Your task to perform on an android device: Open calendar and show me the second week of next month Image 0: 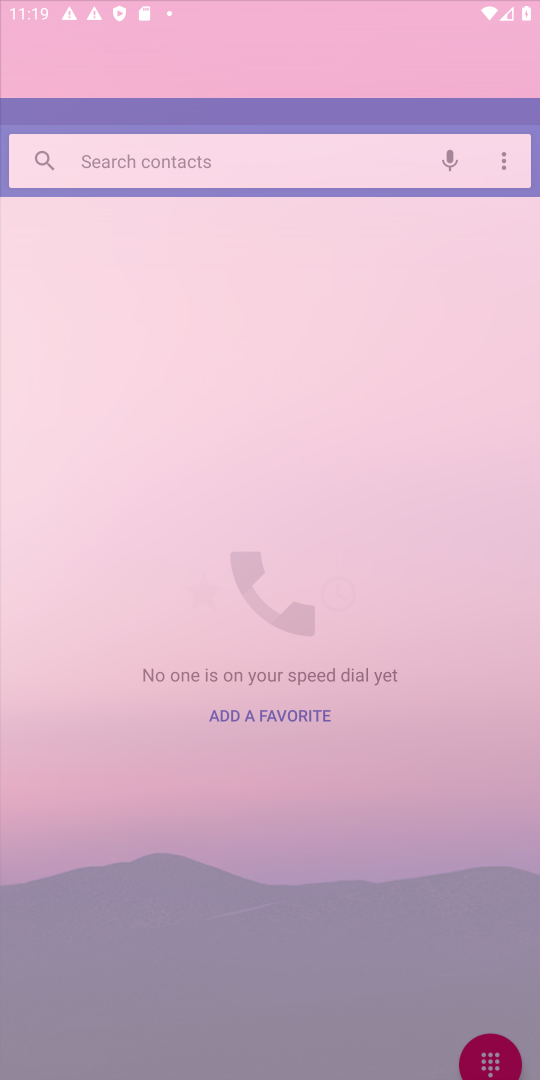
Step 0: press home button
Your task to perform on an android device: Open calendar and show me the second week of next month Image 1: 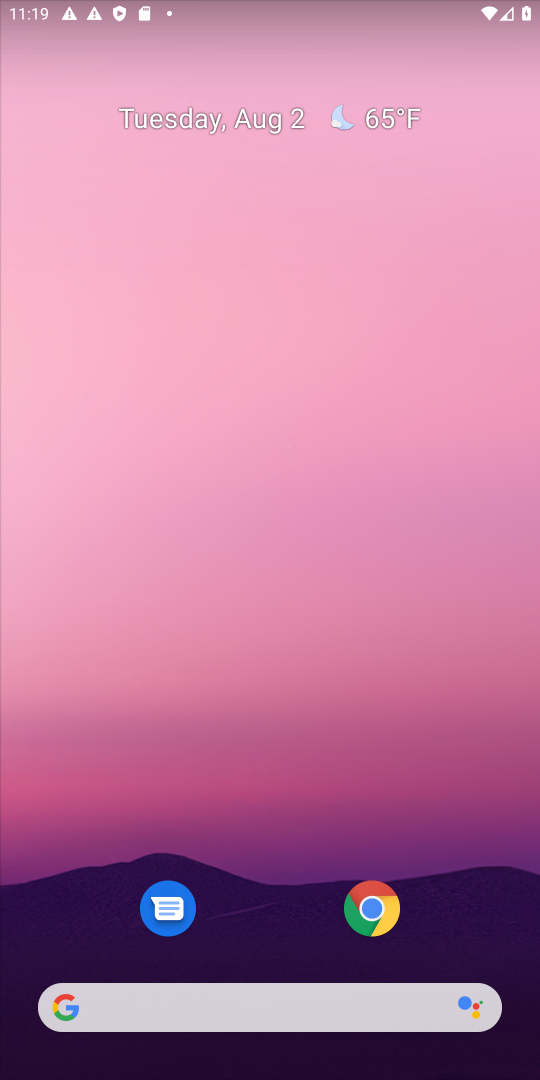
Step 1: drag from (270, 948) to (272, 130)
Your task to perform on an android device: Open calendar and show me the second week of next month Image 2: 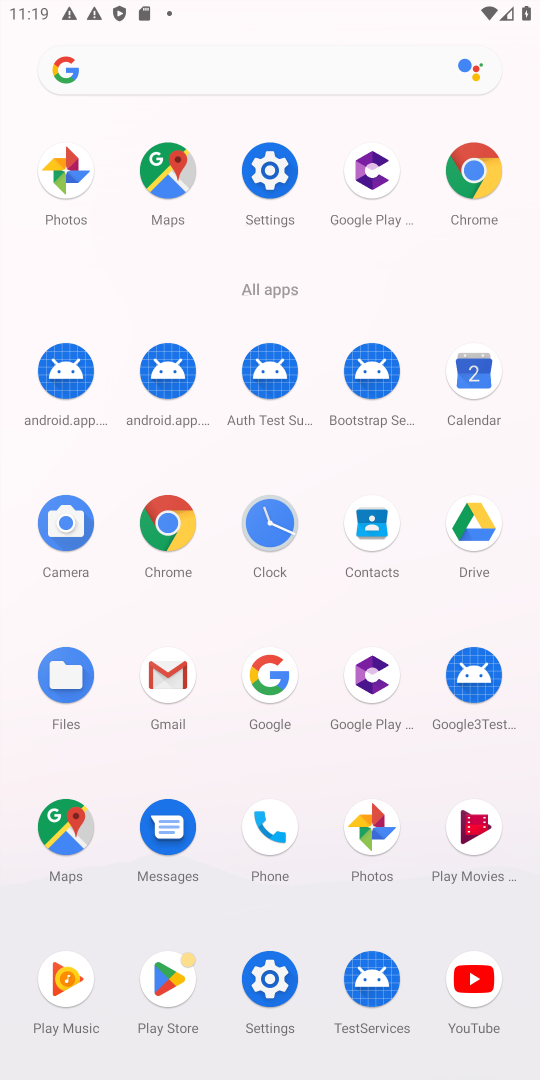
Step 2: click (472, 366)
Your task to perform on an android device: Open calendar and show me the second week of next month Image 3: 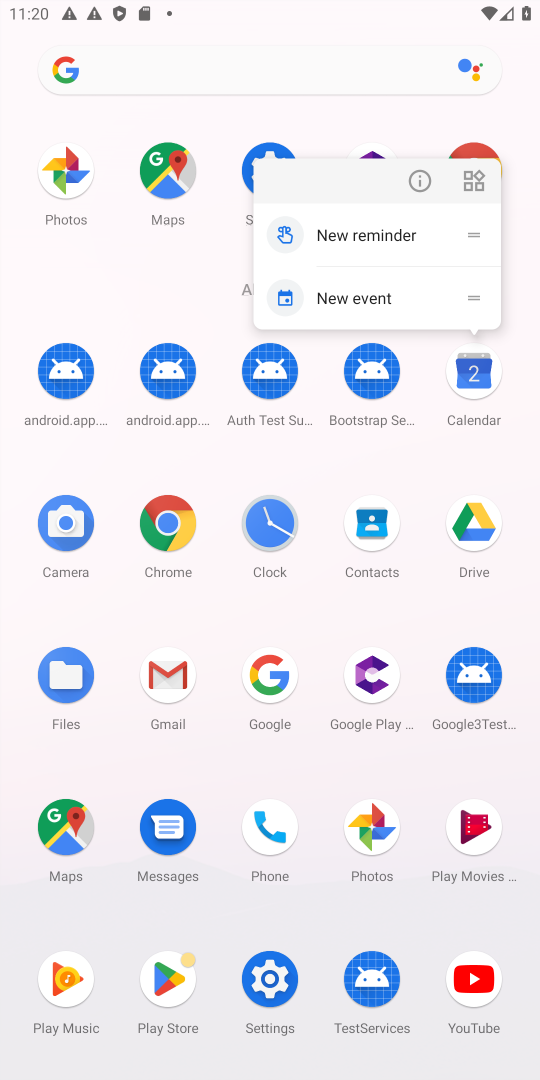
Step 3: click (474, 368)
Your task to perform on an android device: Open calendar and show me the second week of next month Image 4: 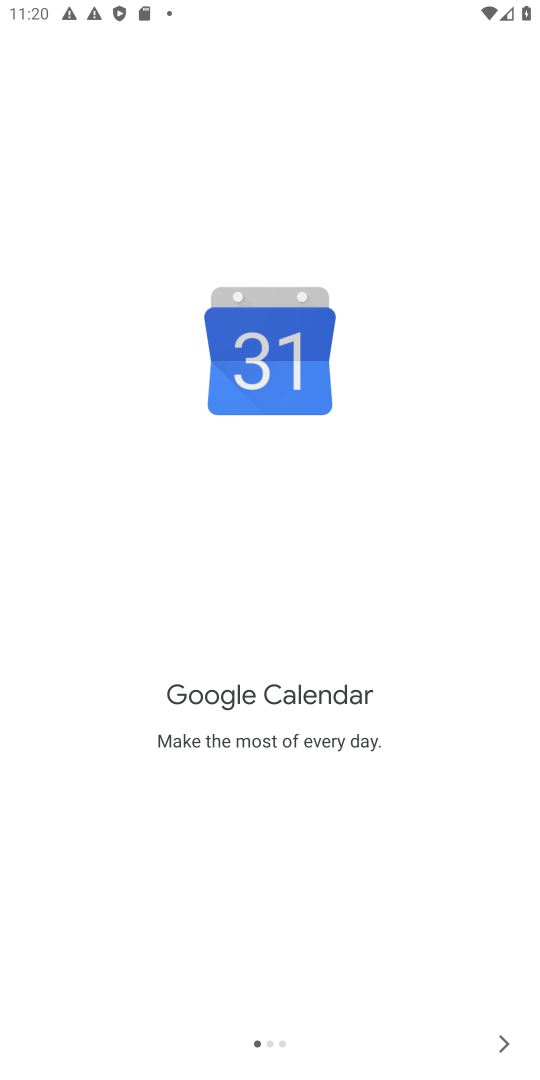
Step 4: click (504, 1049)
Your task to perform on an android device: Open calendar and show me the second week of next month Image 5: 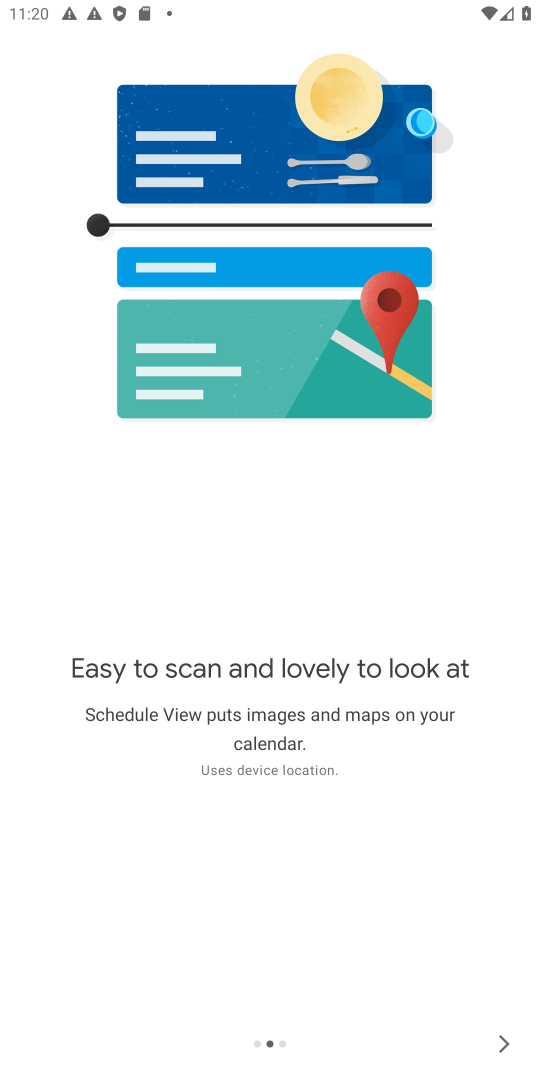
Step 5: click (504, 1049)
Your task to perform on an android device: Open calendar and show me the second week of next month Image 6: 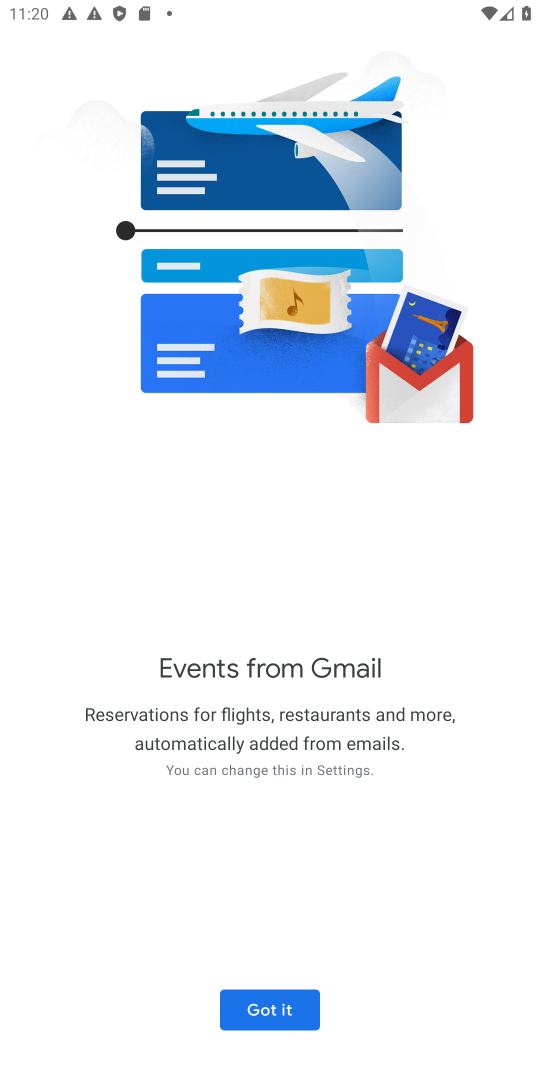
Step 6: click (272, 1001)
Your task to perform on an android device: Open calendar and show me the second week of next month Image 7: 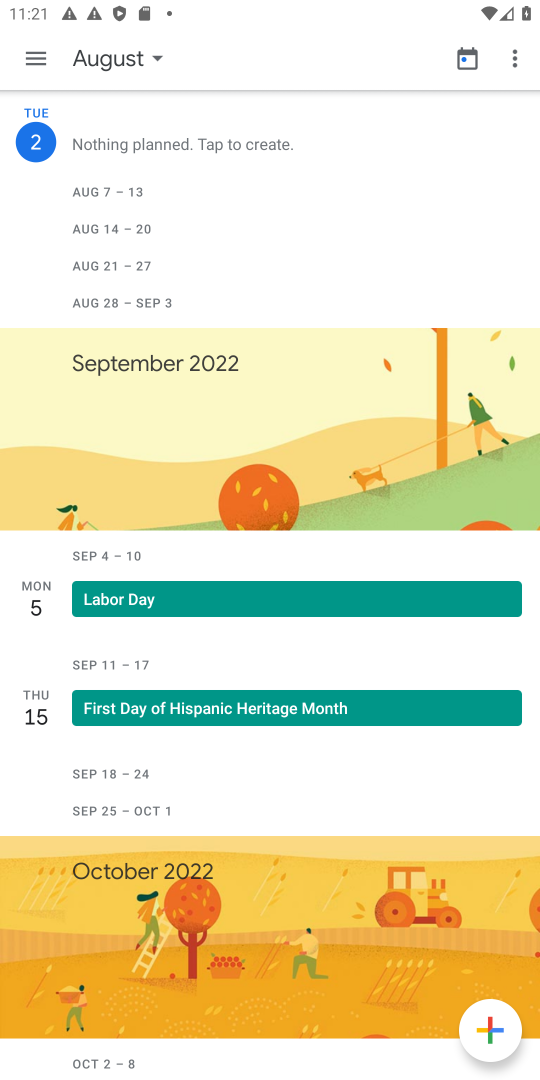
Step 7: click (163, 55)
Your task to perform on an android device: Open calendar and show me the second week of next month Image 8: 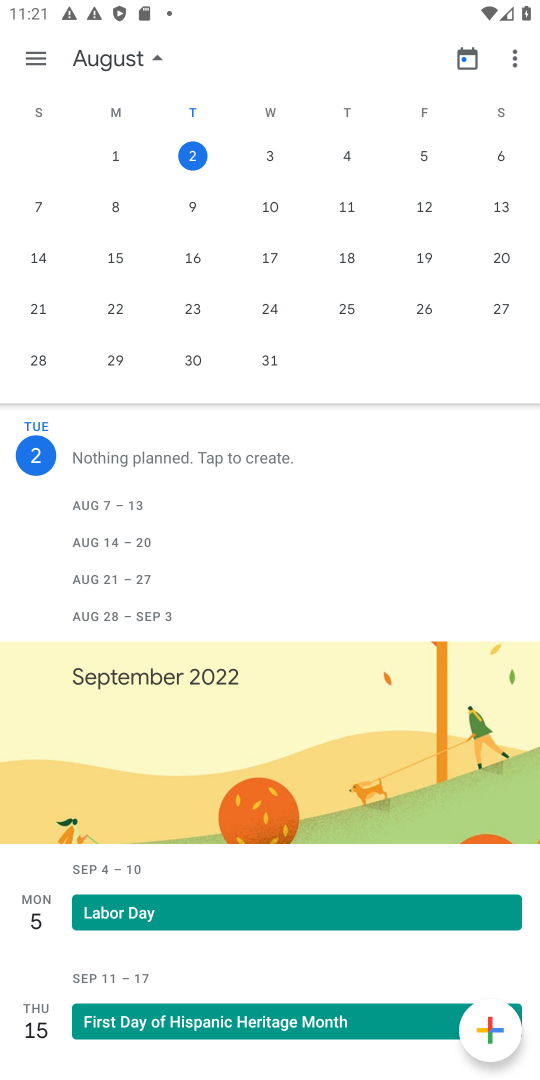
Step 8: drag from (481, 213) to (20, 140)
Your task to perform on an android device: Open calendar and show me the second week of next month Image 9: 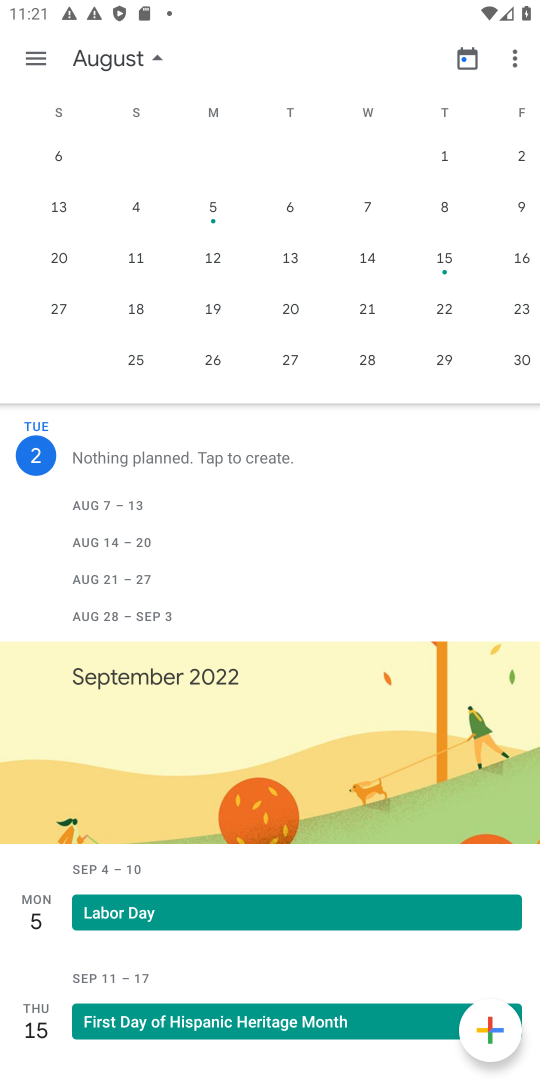
Step 9: click (38, 57)
Your task to perform on an android device: Open calendar and show me the second week of next month Image 10: 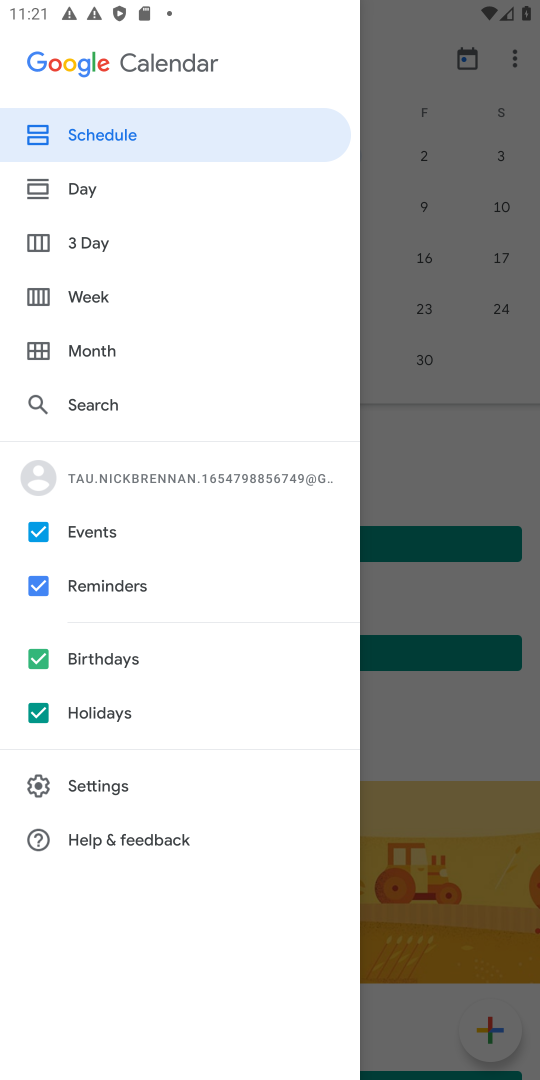
Step 10: click (90, 295)
Your task to perform on an android device: Open calendar and show me the second week of next month Image 11: 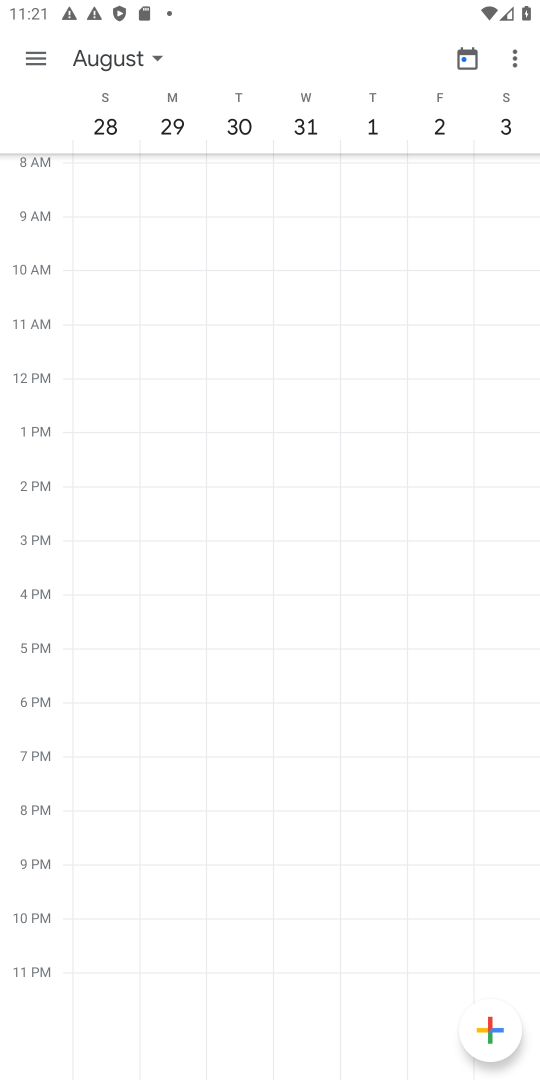
Step 11: click (151, 43)
Your task to perform on an android device: Open calendar and show me the second week of next month Image 12: 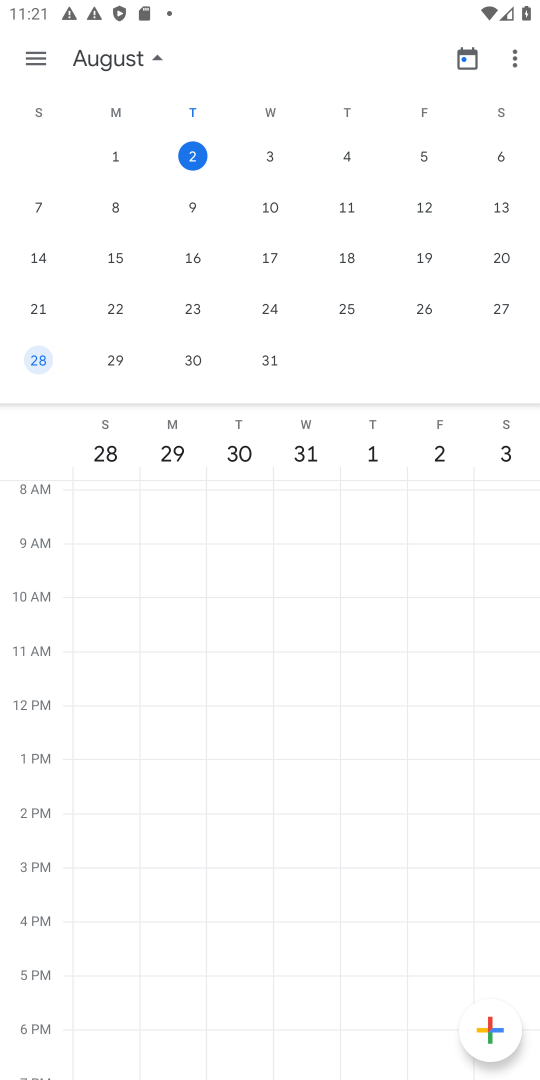
Step 12: drag from (447, 222) to (0, 254)
Your task to perform on an android device: Open calendar and show me the second week of next month Image 13: 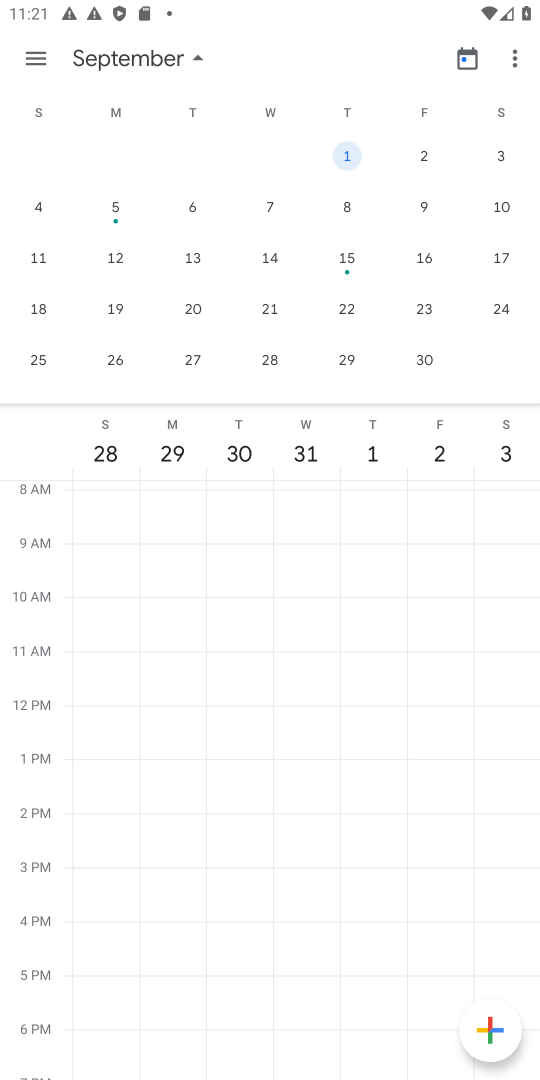
Step 13: click (452, 222)
Your task to perform on an android device: Open calendar and show me the second week of next month Image 14: 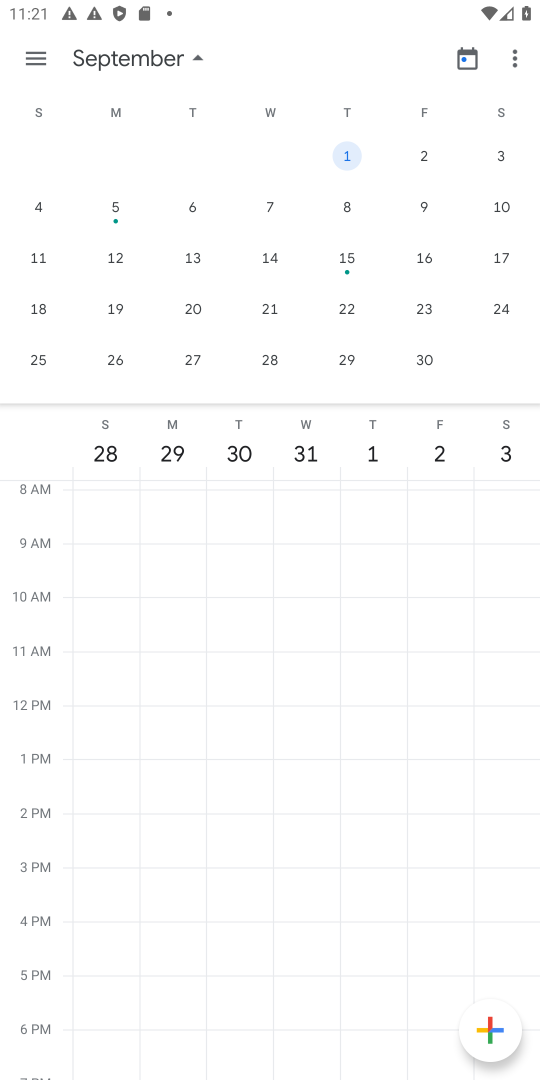
Step 14: click (26, 254)
Your task to perform on an android device: Open calendar and show me the second week of next month Image 15: 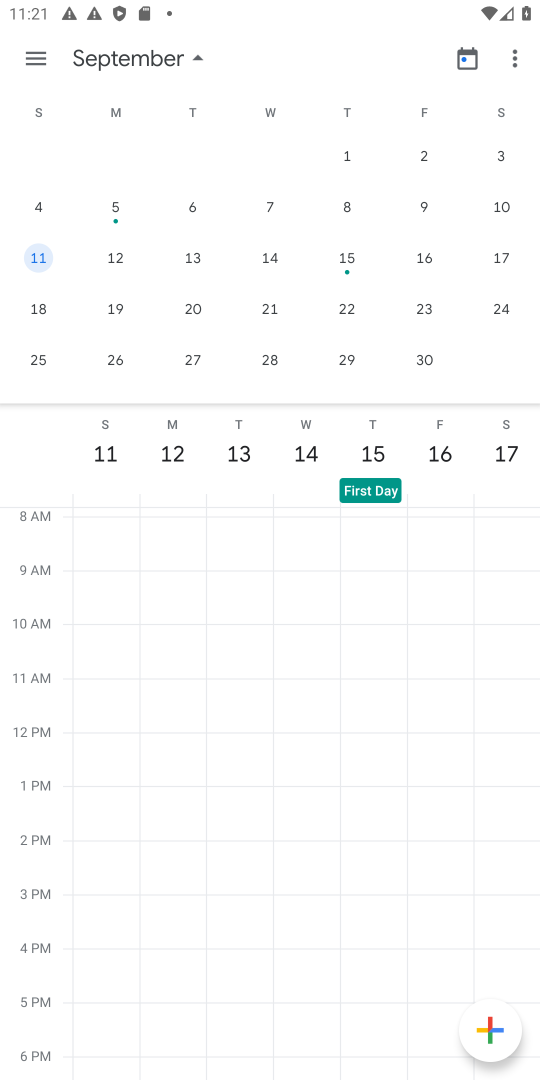
Step 15: click (199, 52)
Your task to perform on an android device: Open calendar and show me the second week of next month Image 16: 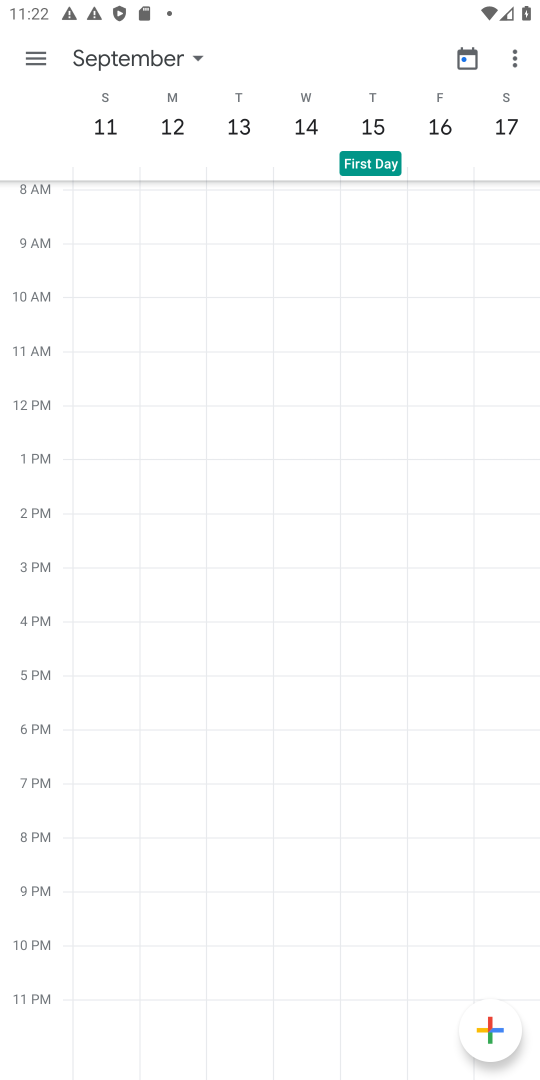
Step 16: task complete